Your task to perform on an android device: read, delete, or share a saved page in the chrome app Image 0: 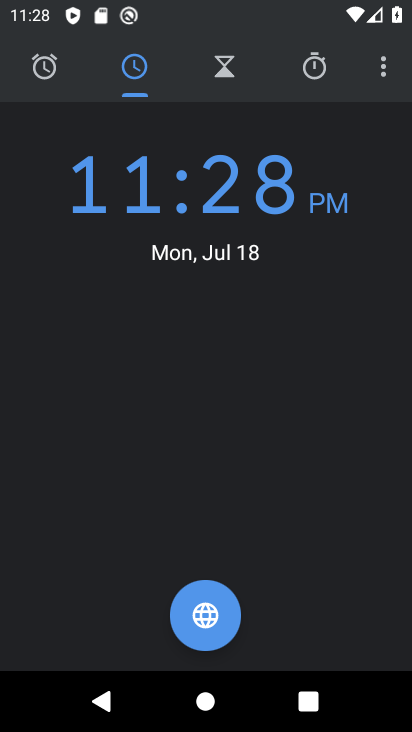
Step 0: press home button
Your task to perform on an android device: read, delete, or share a saved page in the chrome app Image 1: 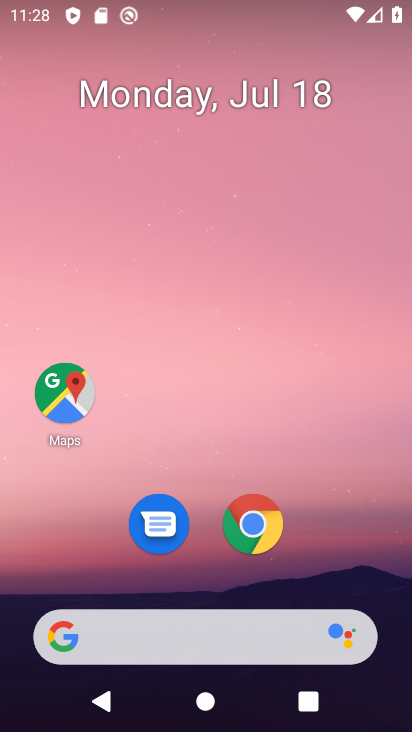
Step 1: click (250, 522)
Your task to perform on an android device: read, delete, or share a saved page in the chrome app Image 2: 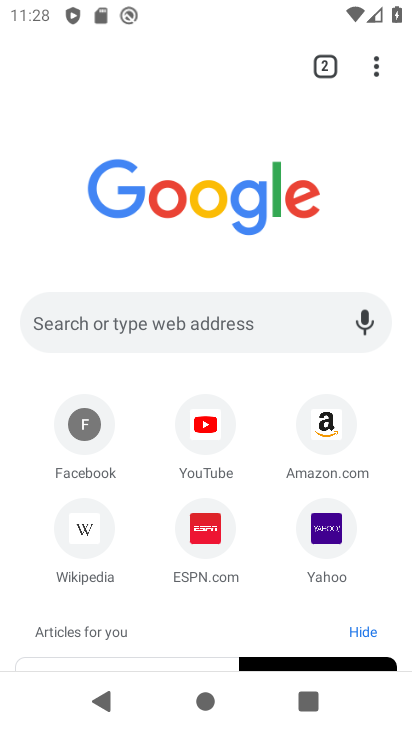
Step 2: click (378, 63)
Your task to perform on an android device: read, delete, or share a saved page in the chrome app Image 3: 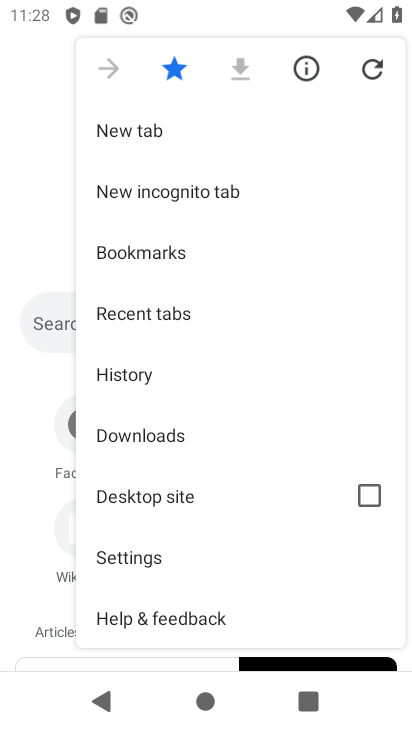
Step 3: click (127, 435)
Your task to perform on an android device: read, delete, or share a saved page in the chrome app Image 4: 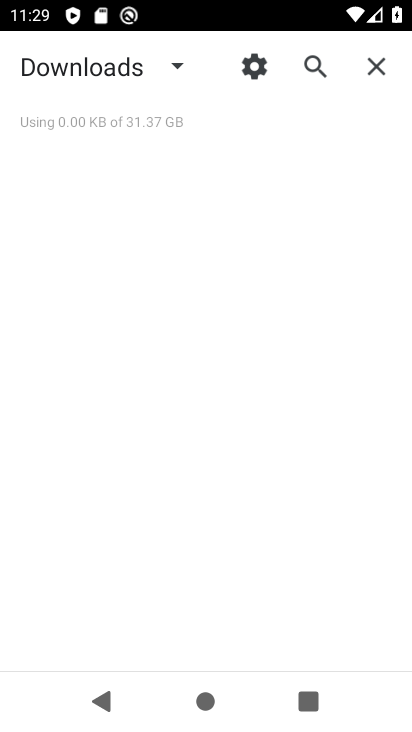
Step 4: task complete